Your task to perform on an android device: Open Google Image 0: 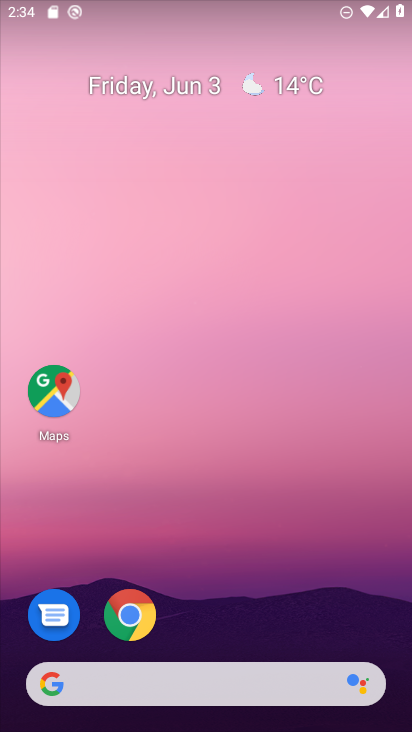
Step 0: click (283, 258)
Your task to perform on an android device: Open Google Image 1: 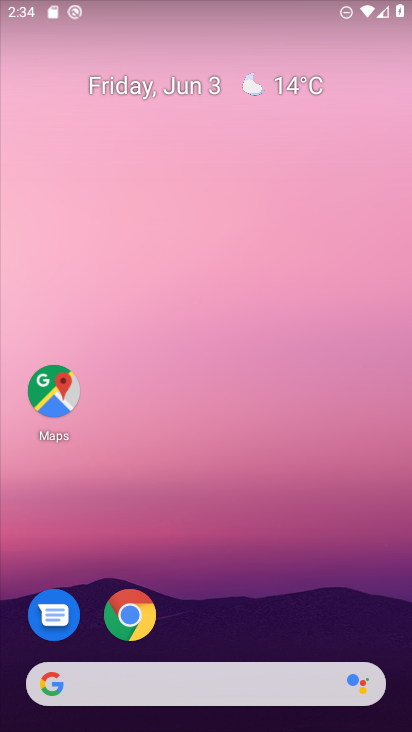
Step 1: drag from (238, 600) to (235, 264)
Your task to perform on an android device: Open Google Image 2: 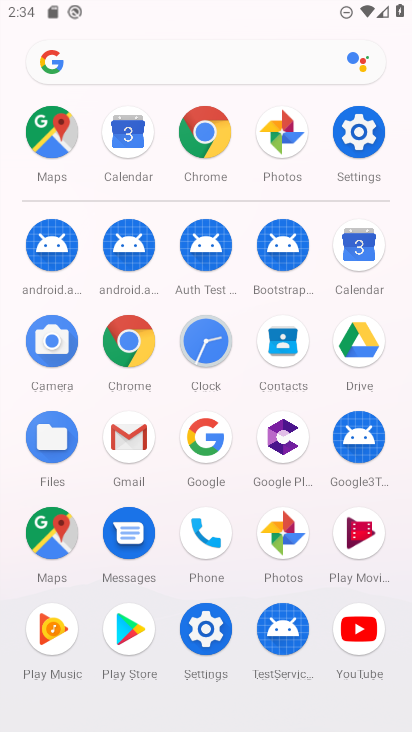
Step 2: click (200, 432)
Your task to perform on an android device: Open Google Image 3: 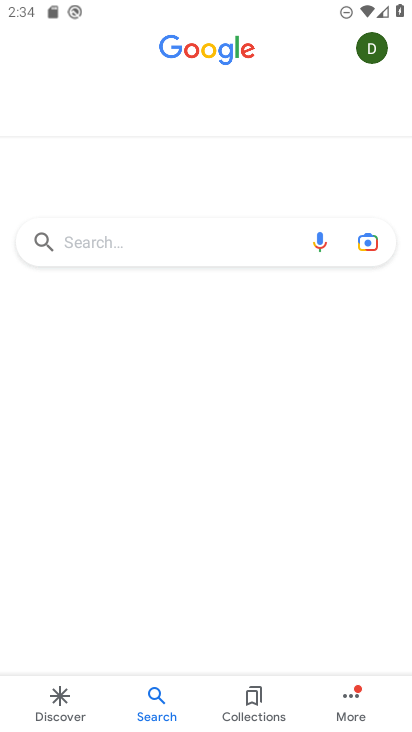
Step 3: drag from (225, 615) to (227, 149)
Your task to perform on an android device: Open Google Image 4: 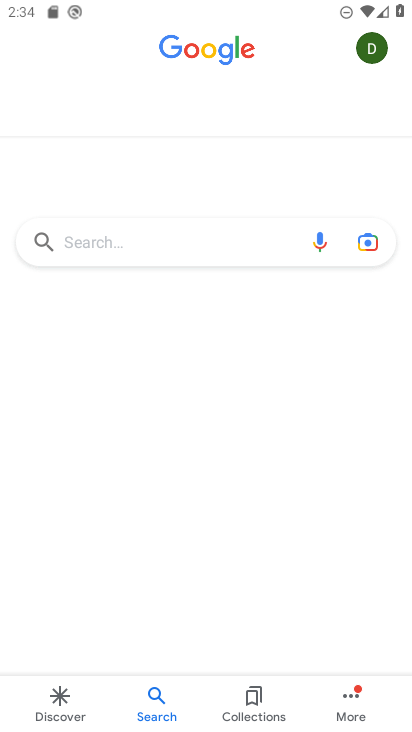
Step 4: drag from (149, 223) to (290, 716)
Your task to perform on an android device: Open Google Image 5: 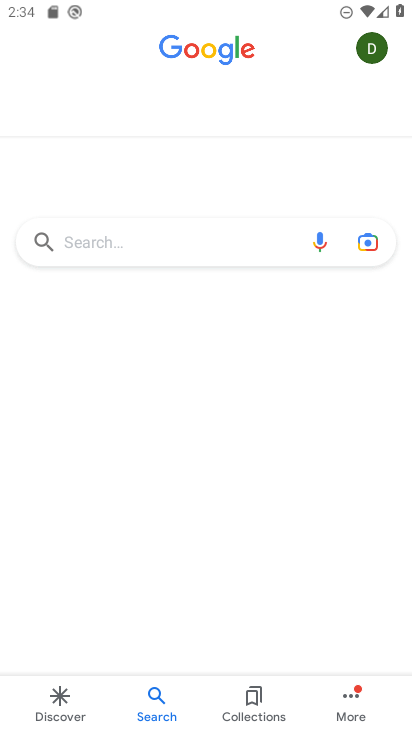
Step 5: click (345, 693)
Your task to perform on an android device: Open Google Image 6: 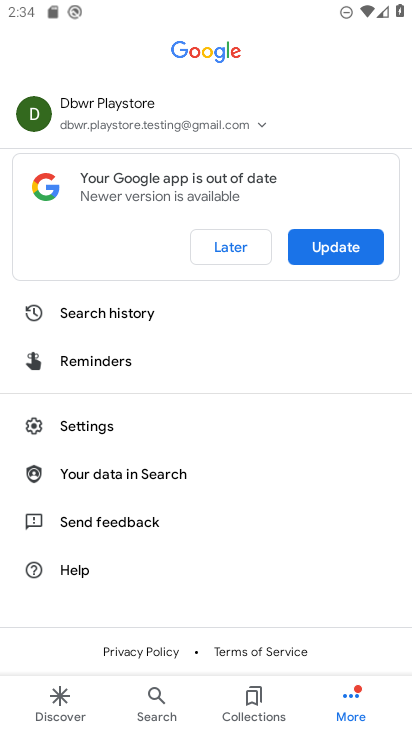
Step 6: click (141, 409)
Your task to perform on an android device: Open Google Image 7: 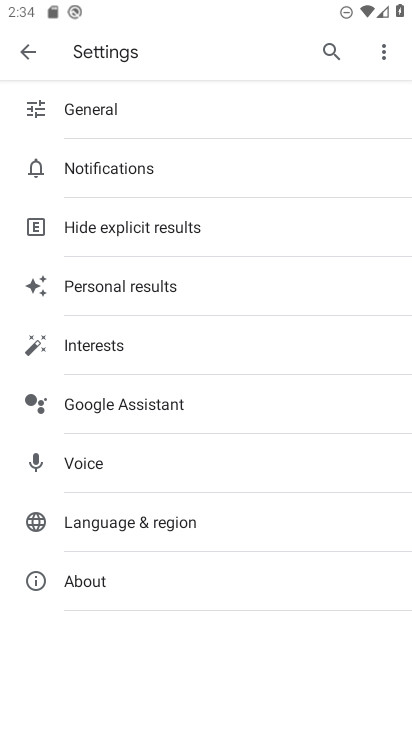
Step 7: drag from (213, 524) to (228, 176)
Your task to perform on an android device: Open Google Image 8: 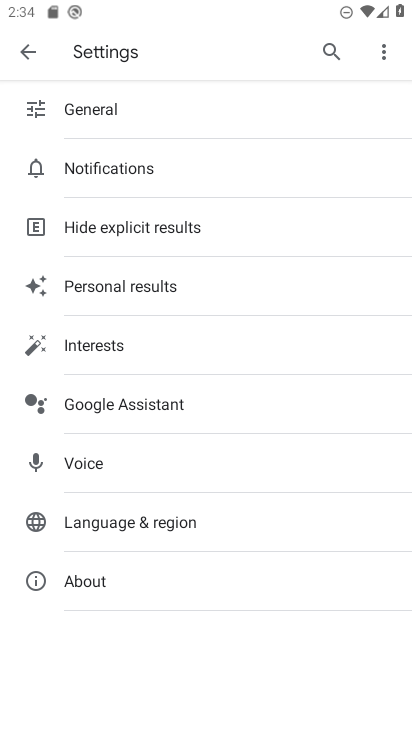
Step 8: drag from (234, 125) to (210, 599)
Your task to perform on an android device: Open Google Image 9: 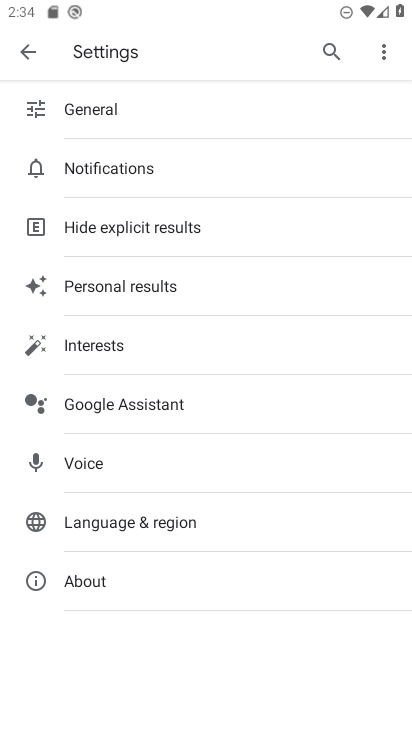
Step 9: click (123, 581)
Your task to perform on an android device: Open Google Image 10: 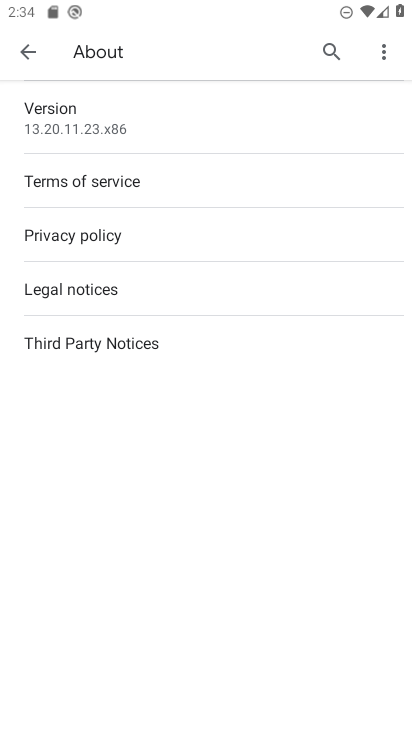
Step 10: task complete